Your task to perform on an android device: toggle notification dots Image 0: 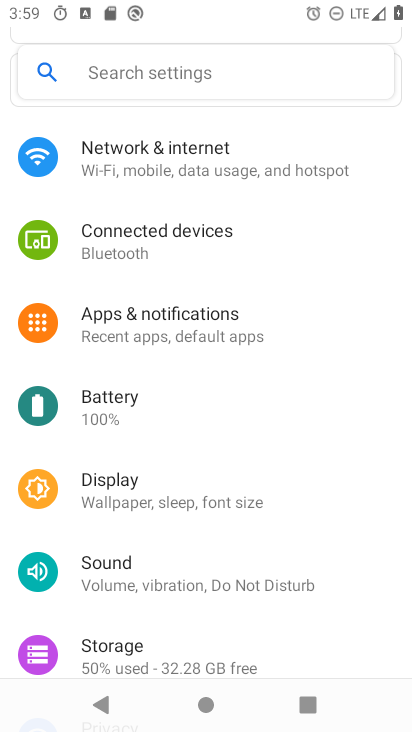
Step 0: click (184, 151)
Your task to perform on an android device: toggle notification dots Image 1: 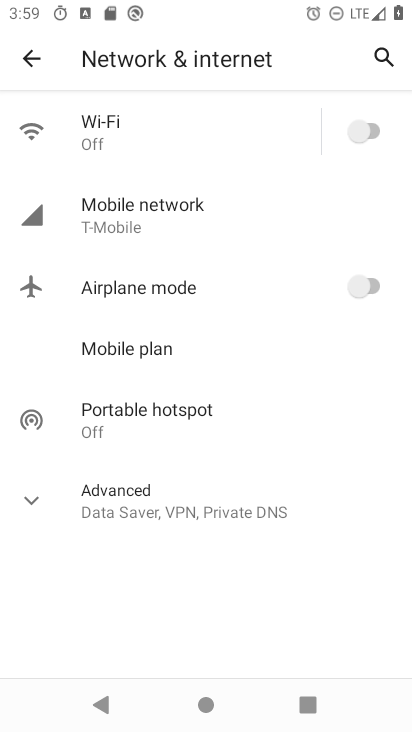
Step 1: press back button
Your task to perform on an android device: toggle notification dots Image 2: 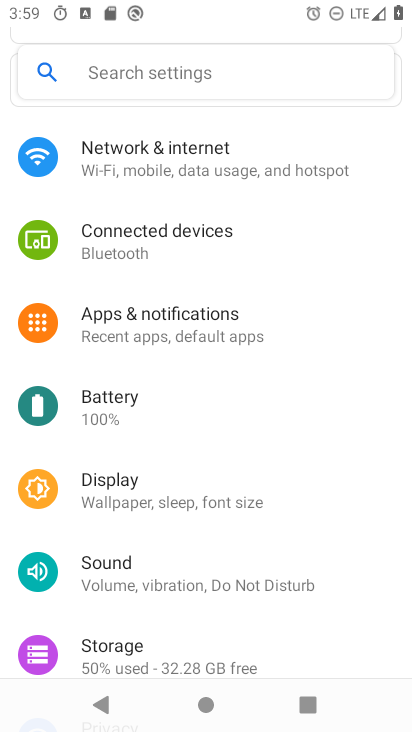
Step 2: click (200, 323)
Your task to perform on an android device: toggle notification dots Image 3: 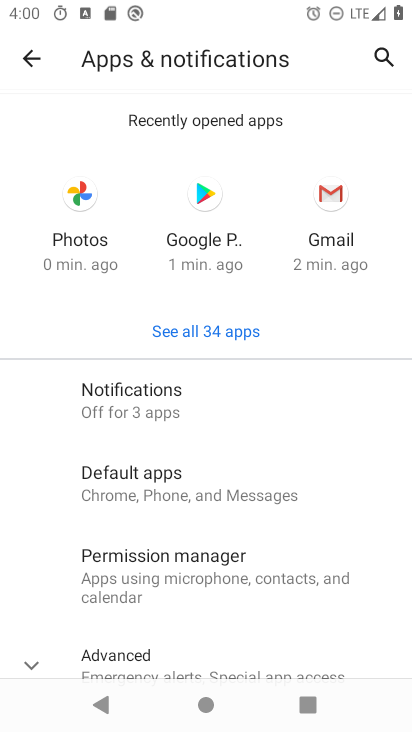
Step 3: click (173, 395)
Your task to perform on an android device: toggle notification dots Image 4: 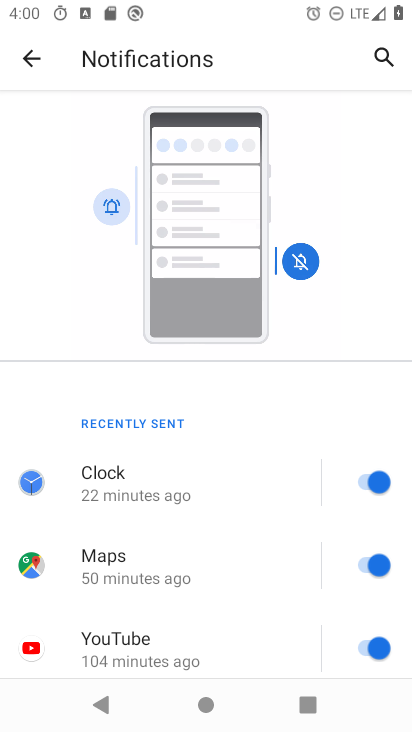
Step 4: drag from (220, 628) to (255, 116)
Your task to perform on an android device: toggle notification dots Image 5: 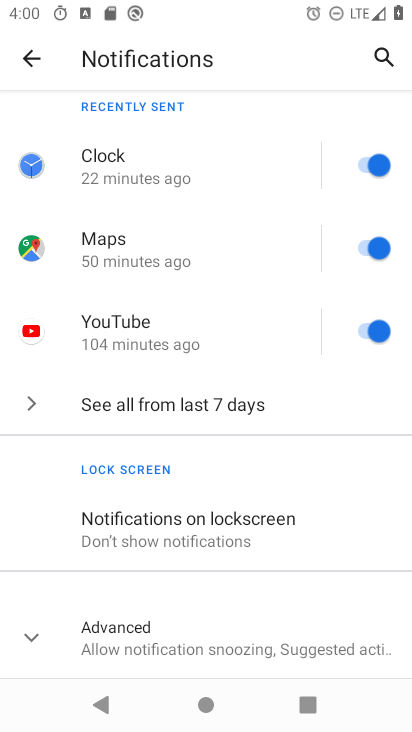
Step 5: click (195, 637)
Your task to perform on an android device: toggle notification dots Image 6: 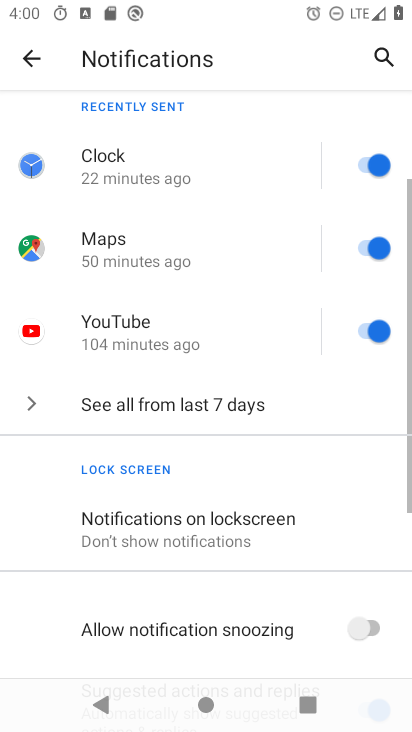
Step 6: drag from (205, 652) to (241, 151)
Your task to perform on an android device: toggle notification dots Image 7: 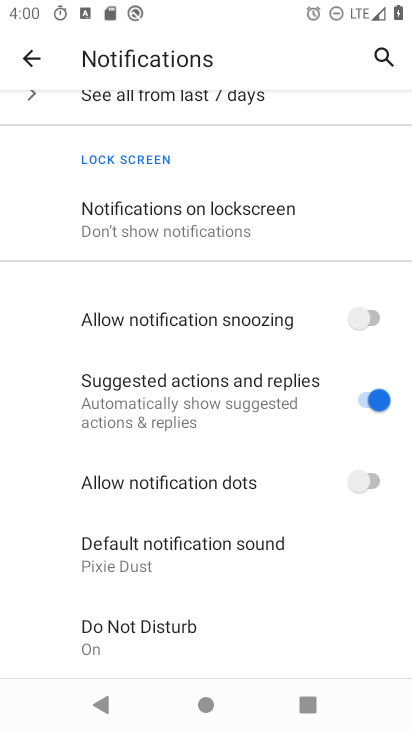
Step 7: click (370, 483)
Your task to perform on an android device: toggle notification dots Image 8: 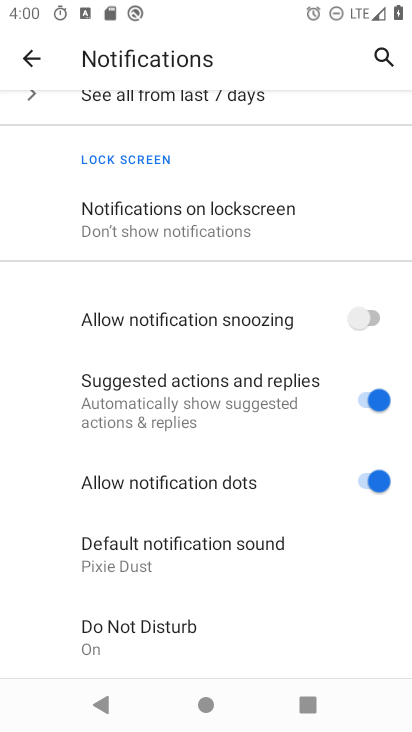
Step 8: task complete